Your task to perform on an android device: turn off airplane mode Image 0: 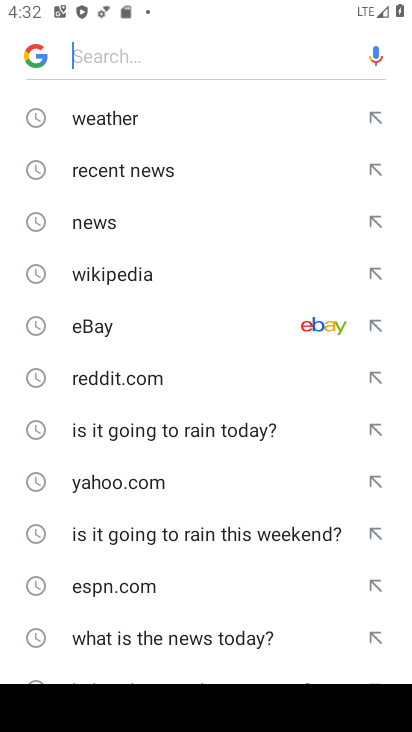
Step 0: press home button
Your task to perform on an android device: turn off airplane mode Image 1: 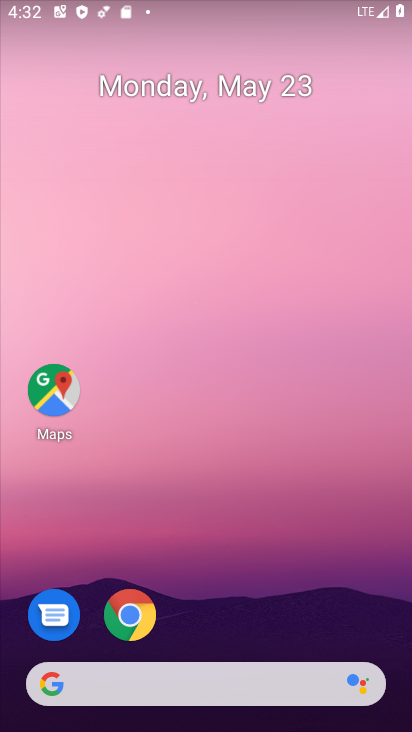
Step 1: task complete